Your task to perform on an android device: Open settings on Google Maps Image 0: 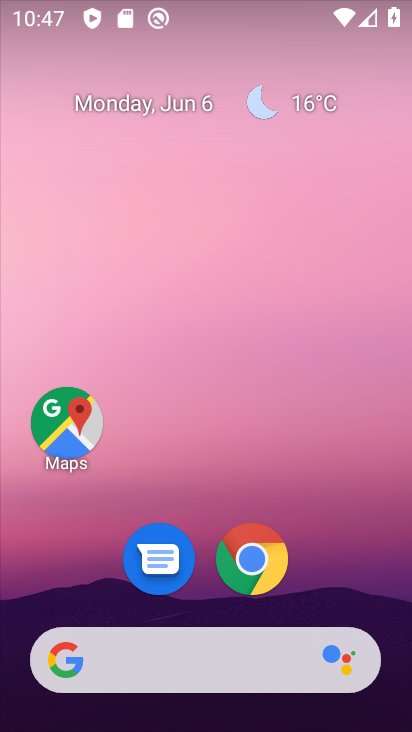
Step 0: drag from (39, 613) to (181, 136)
Your task to perform on an android device: Open settings on Google Maps Image 1: 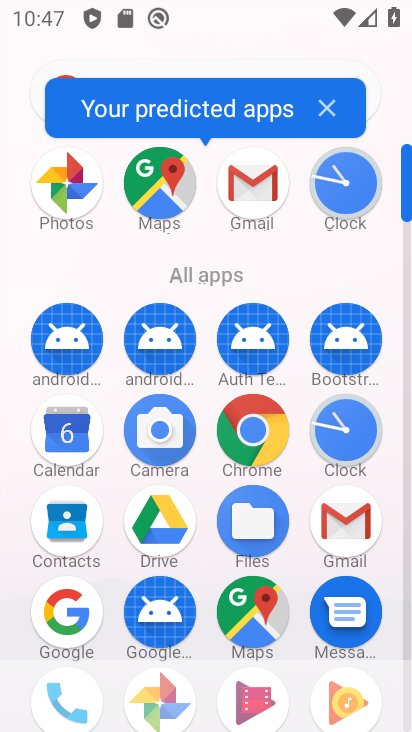
Step 1: click (154, 189)
Your task to perform on an android device: Open settings on Google Maps Image 2: 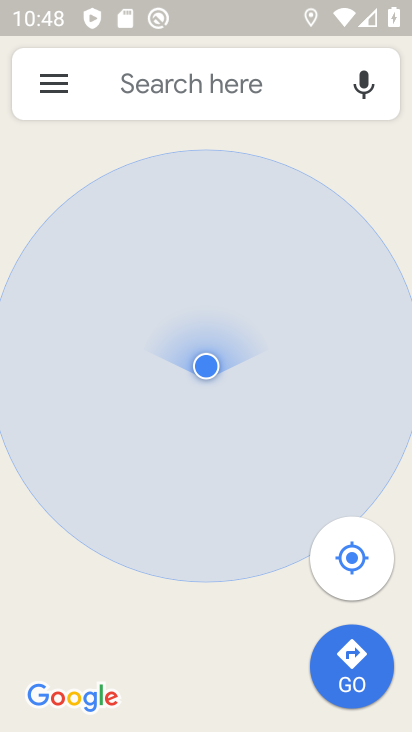
Step 2: click (57, 79)
Your task to perform on an android device: Open settings on Google Maps Image 3: 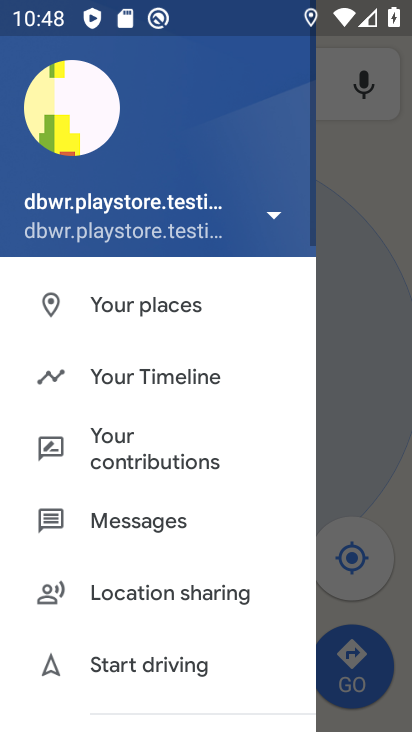
Step 3: drag from (116, 662) to (261, 33)
Your task to perform on an android device: Open settings on Google Maps Image 4: 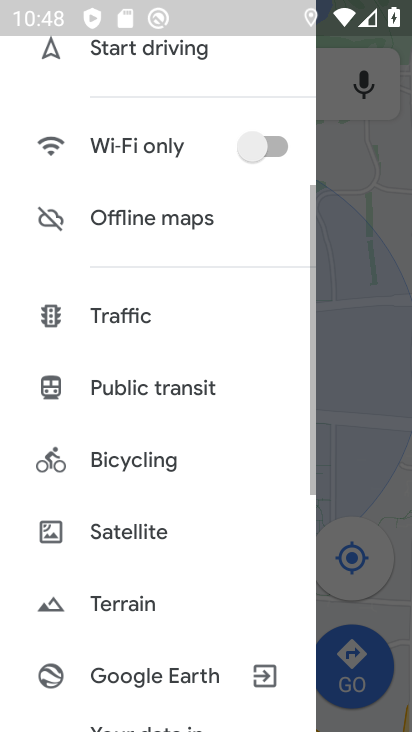
Step 4: drag from (148, 664) to (236, 261)
Your task to perform on an android device: Open settings on Google Maps Image 5: 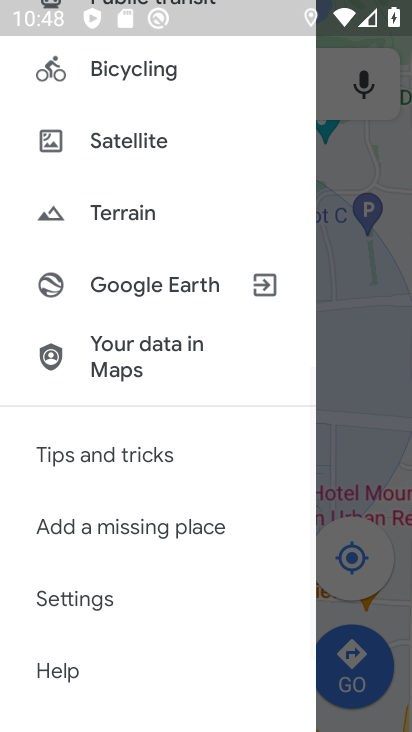
Step 5: click (125, 606)
Your task to perform on an android device: Open settings on Google Maps Image 6: 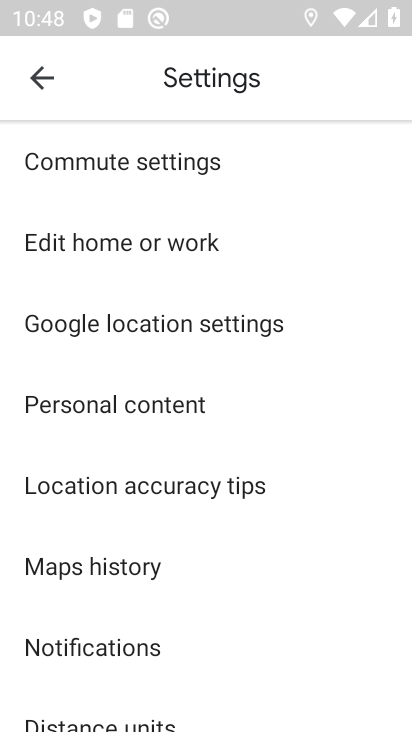
Step 6: task complete